Your task to perform on an android device: Show me productivity apps on the Play Store Image 0: 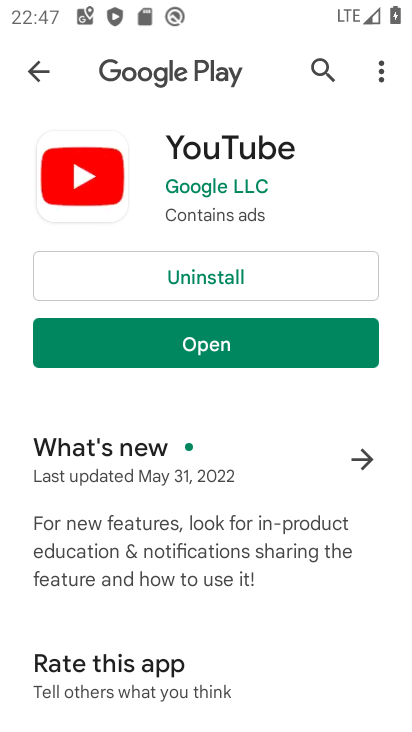
Step 0: press home button
Your task to perform on an android device: Show me productivity apps on the Play Store Image 1: 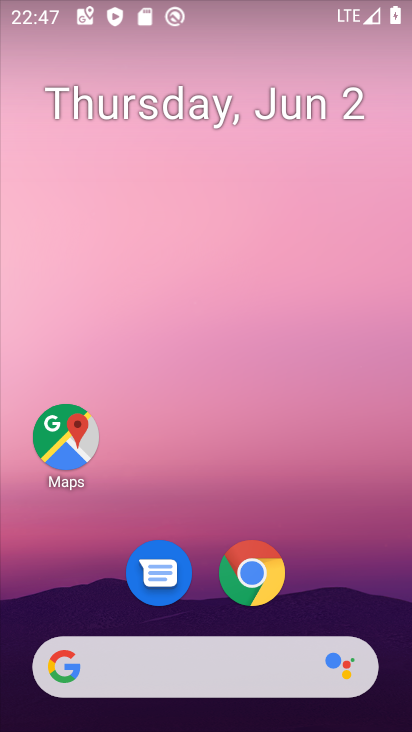
Step 1: drag from (323, 609) to (307, 174)
Your task to perform on an android device: Show me productivity apps on the Play Store Image 2: 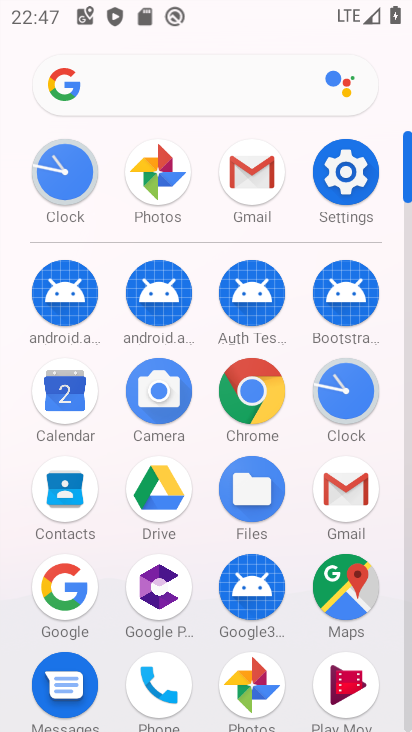
Step 2: drag from (299, 618) to (268, 243)
Your task to perform on an android device: Show me productivity apps on the Play Store Image 3: 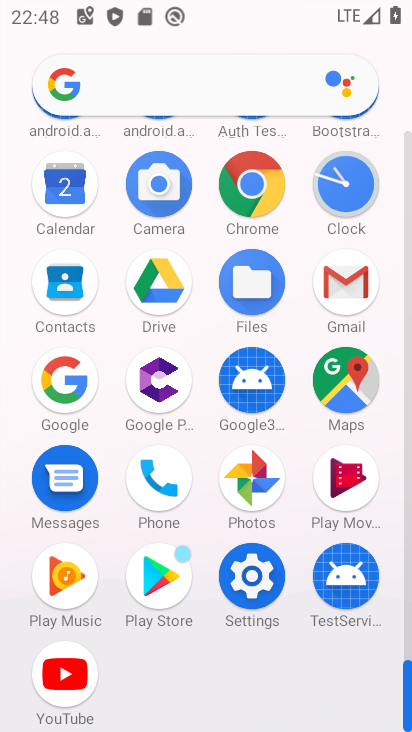
Step 3: click (160, 591)
Your task to perform on an android device: Show me productivity apps on the Play Store Image 4: 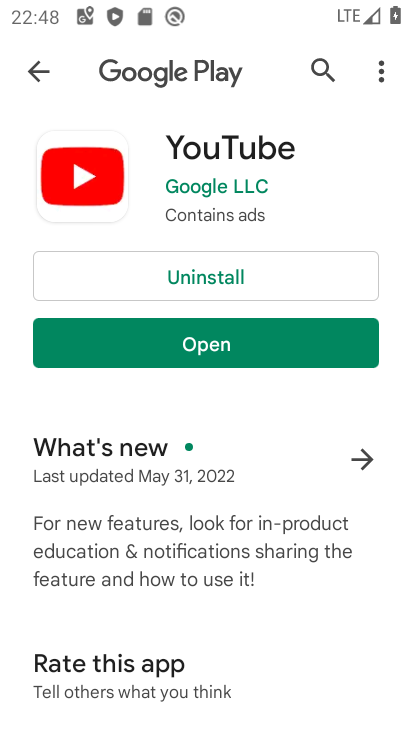
Step 4: click (33, 64)
Your task to perform on an android device: Show me productivity apps on the Play Store Image 5: 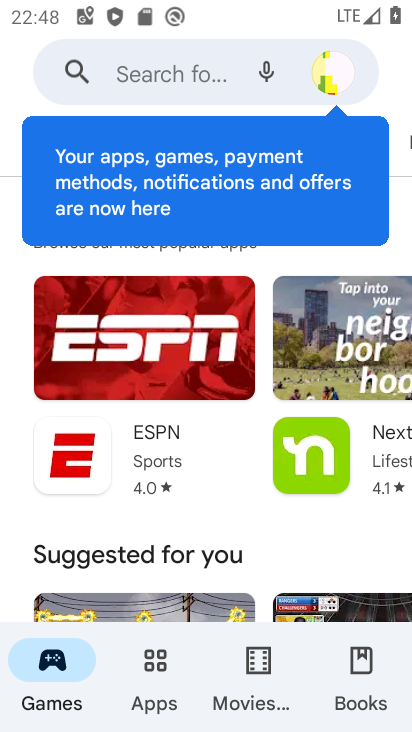
Step 5: click (211, 78)
Your task to perform on an android device: Show me productivity apps on the Play Store Image 6: 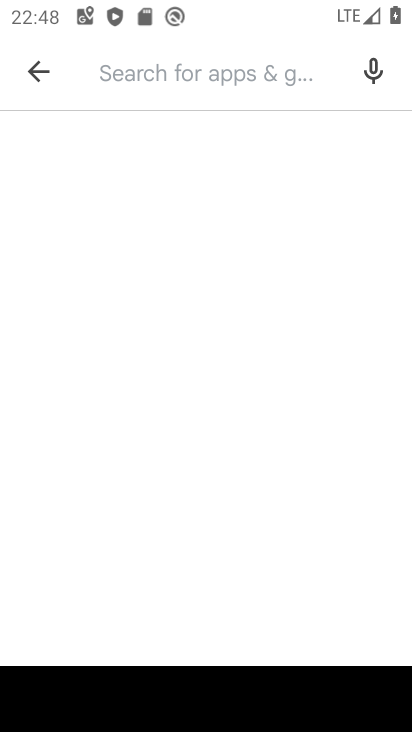
Step 6: type "productivity apps"
Your task to perform on an android device: Show me productivity apps on the Play Store Image 7: 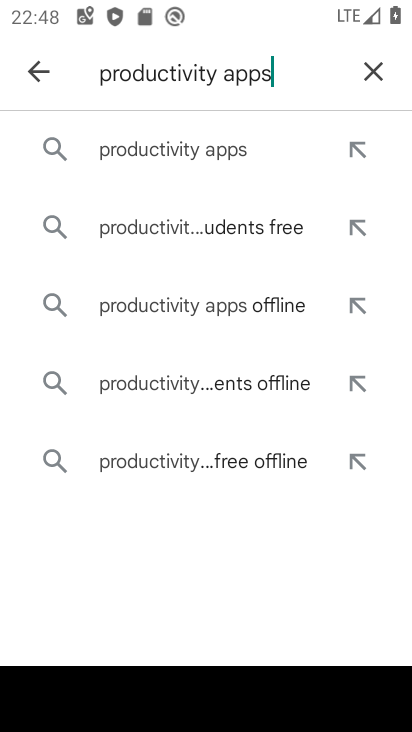
Step 7: click (215, 161)
Your task to perform on an android device: Show me productivity apps on the Play Store Image 8: 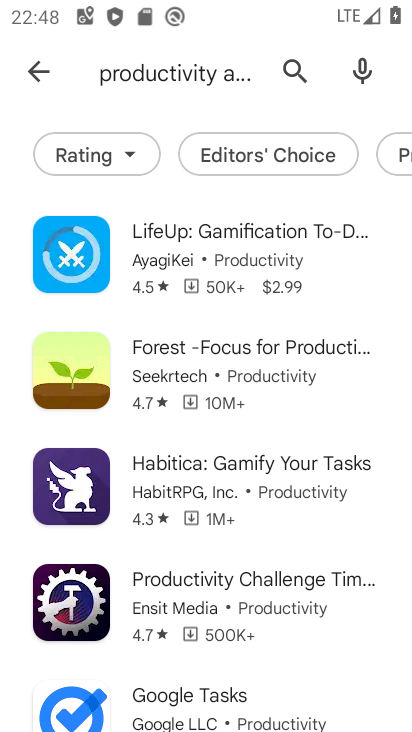
Step 8: task complete